Your task to perform on an android device: remove spam from my inbox in the gmail app Image 0: 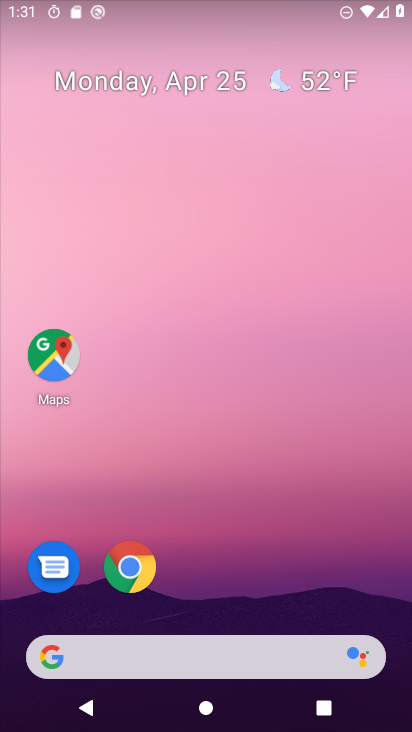
Step 0: drag from (275, 539) to (301, 52)
Your task to perform on an android device: remove spam from my inbox in the gmail app Image 1: 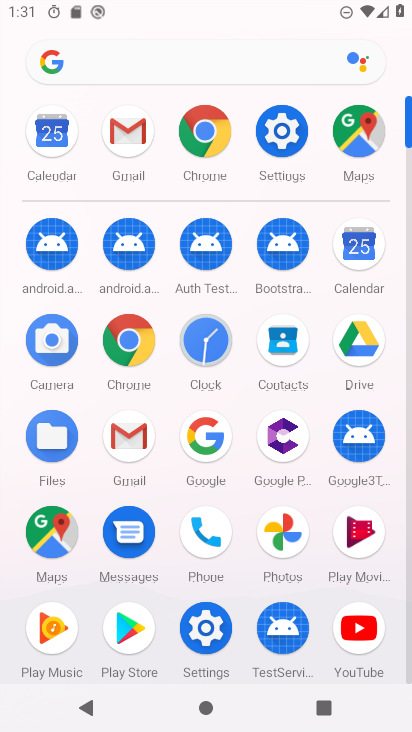
Step 1: click (120, 116)
Your task to perform on an android device: remove spam from my inbox in the gmail app Image 2: 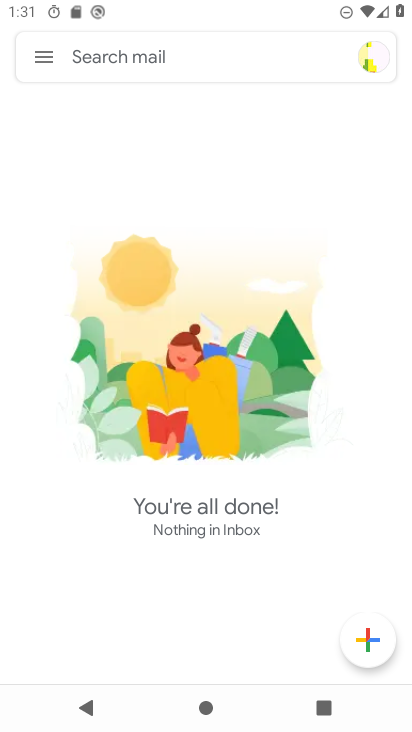
Step 2: click (41, 57)
Your task to perform on an android device: remove spam from my inbox in the gmail app Image 3: 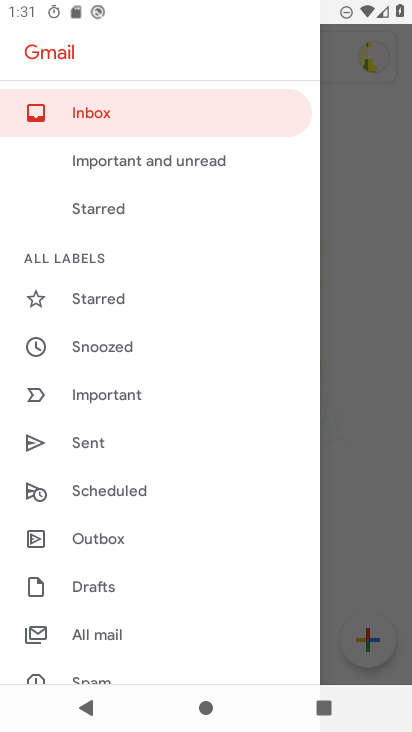
Step 3: drag from (169, 541) to (152, 371)
Your task to perform on an android device: remove spam from my inbox in the gmail app Image 4: 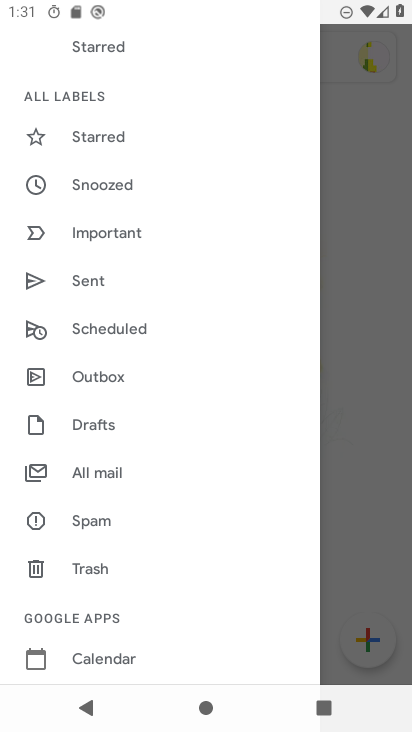
Step 4: click (135, 514)
Your task to perform on an android device: remove spam from my inbox in the gmail app Image 5: 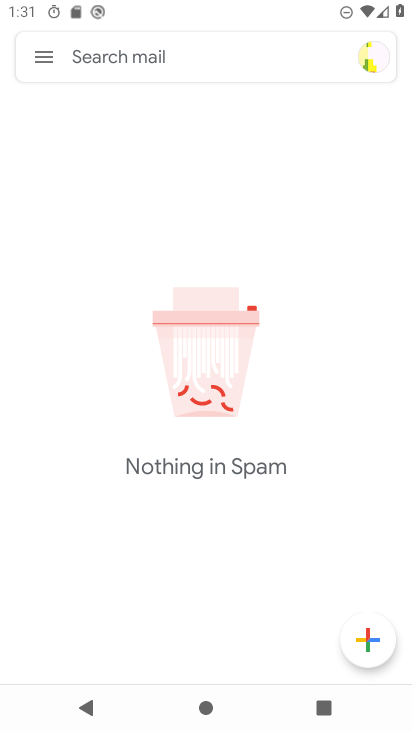
Step 5: task complete